Your task to perform on an android device: Show me popular videos on Youtube Image 0: 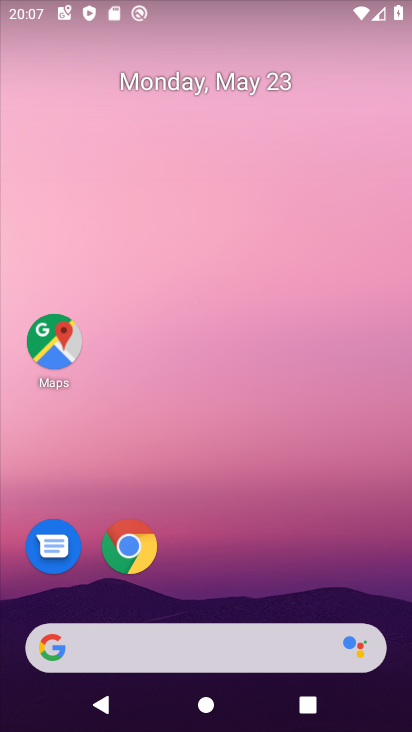
Step 0: drag from (383, 595) to (366, 219)
Your task to perform on an android device: Show me popular videos on Youtube Image 1: 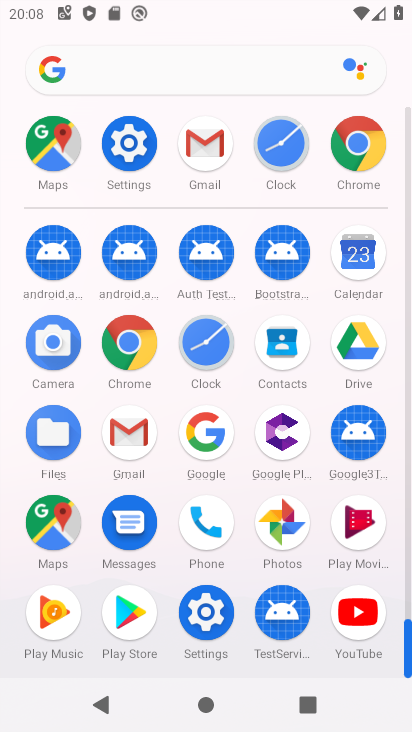
Step 1: click (374, 614)
Your task to perform on an android device: Show me popular videos on Youtube Image 2: 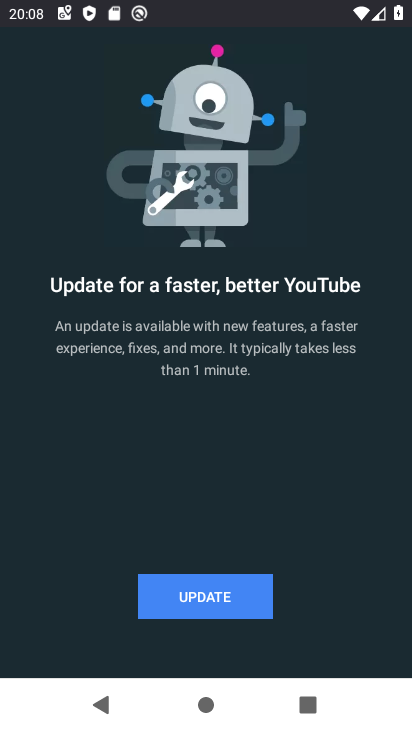
Step 2: click (259, 609)
Your task to perform on an android device: Show me popular videos on Youtube Image 3: 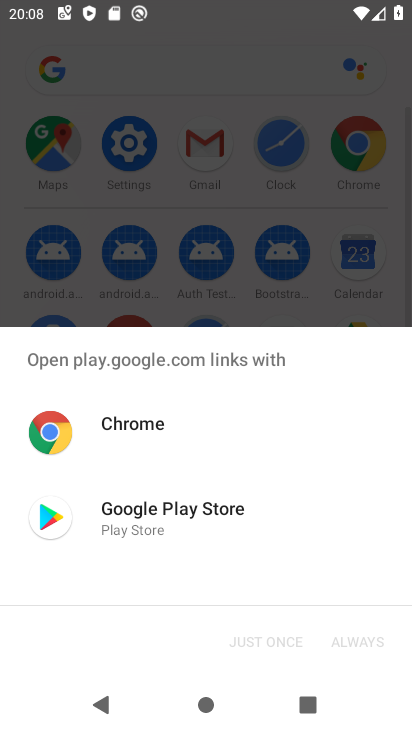
Step 3: click (156, 536)
Your task to perform on an android device: Show me popular videos on Youtube Image 4: 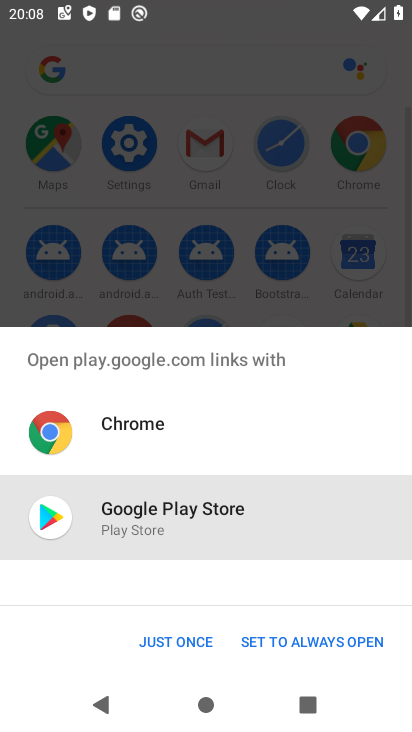
Step 4: click (177, 654)
Your task to perform on an android device: Show me popular videos on Youtube Image 5: 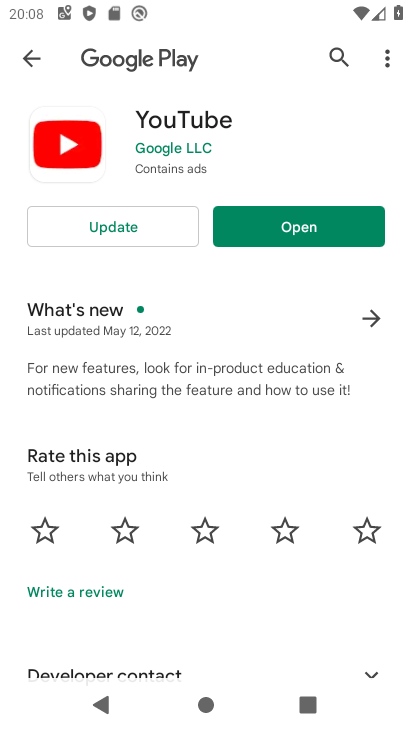
Step 5: click (166, 212)
Your task to perform on an android device: Show me popular videos on Youtube Image 6: 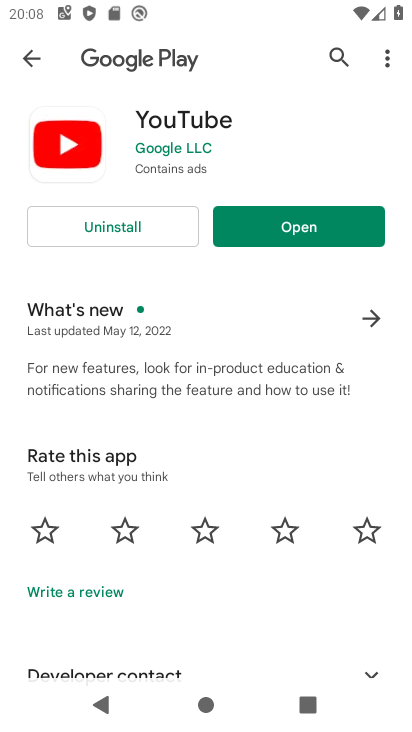
Step 6: click (333, 215)
Your task to perform on an android device: Show me popular videos on Youtube Image 7: 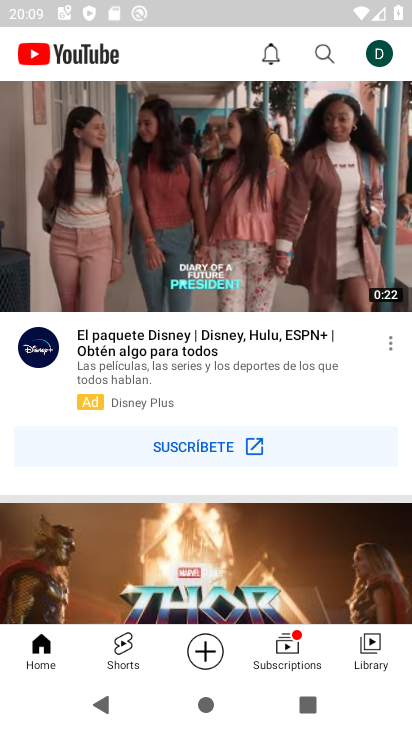
Step 7: task complete